Your task to perform on an android device: Open Youtube and go to "Your channel" Image 0: 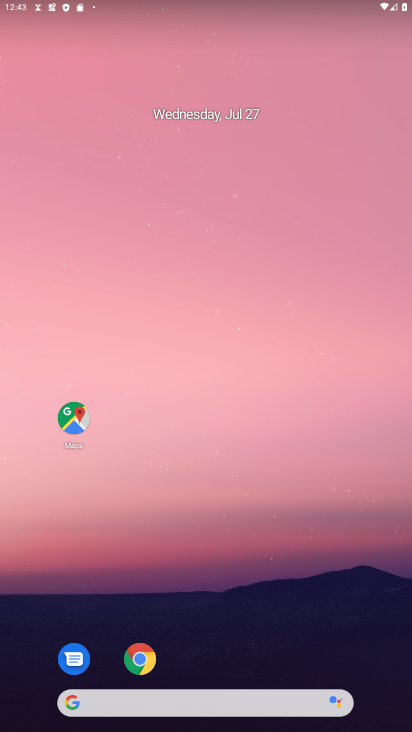
Step 0: drag from (211, 678) to (231, 66)
Your task to perform on an android device: Open Youtube and go to "Your channel" Image 1: 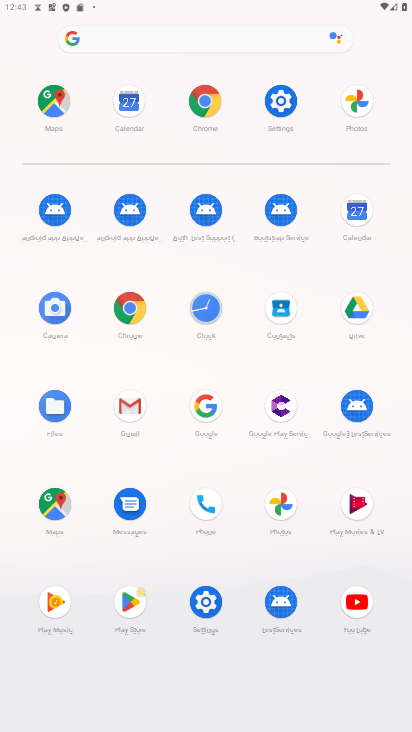
Step 1: click (356, 600)
Your task to perform on an android device: Open Youtube and go to "Your channel" Image 2: 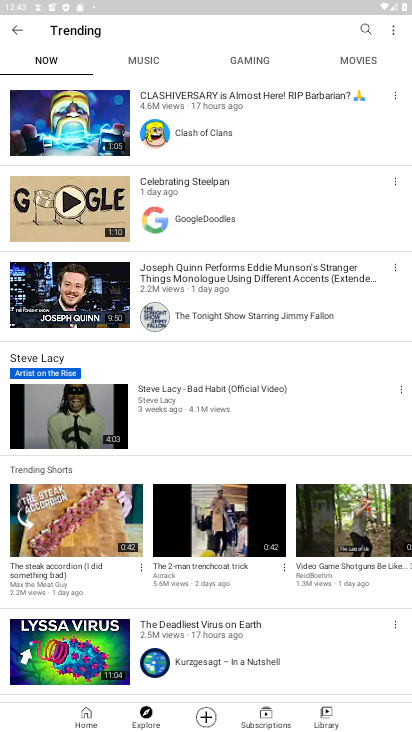
Step 2: click (11, 21)
Your task to perform on an android device: Open Youtube and go to "Your channel" Image 3: 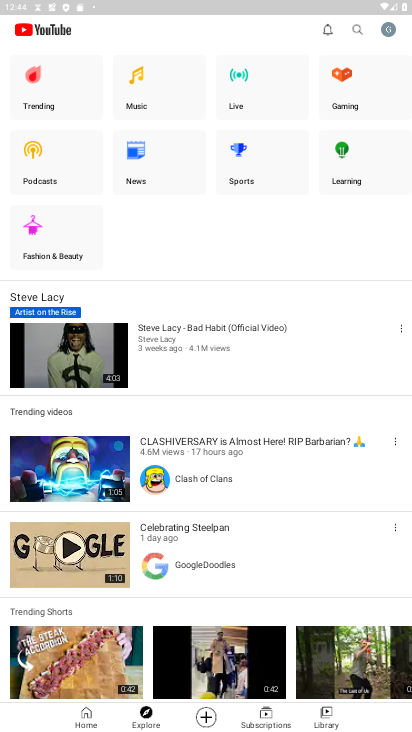
Step 3: click (385, 26)
Your task to perform on an android device: Open Youtube and go to "Your channel" Image 4: 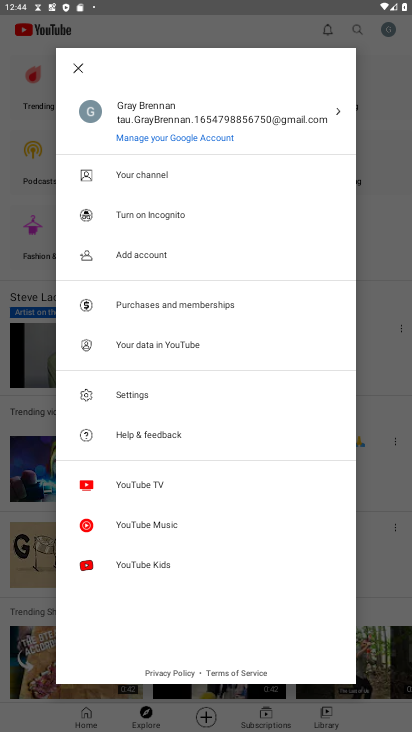
Step 4: click (135, 173)
Your task to perform on an android device: Open Youtube and go to "Your channel" Image 5: 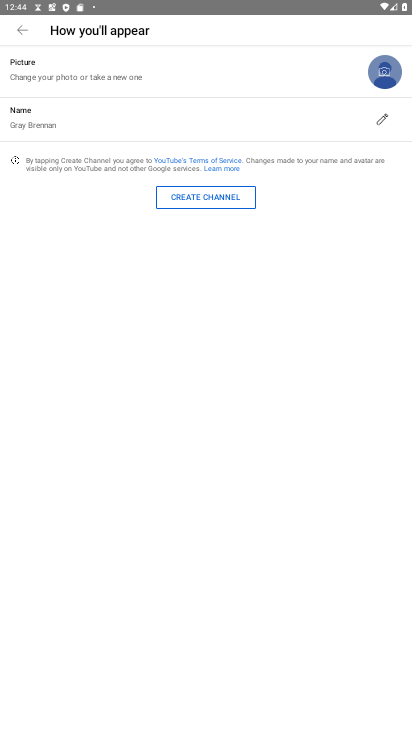
Step 5: click (20, 25)
Your task to perform on an android device: Open Youtube and go to "Your channel" Image 6: 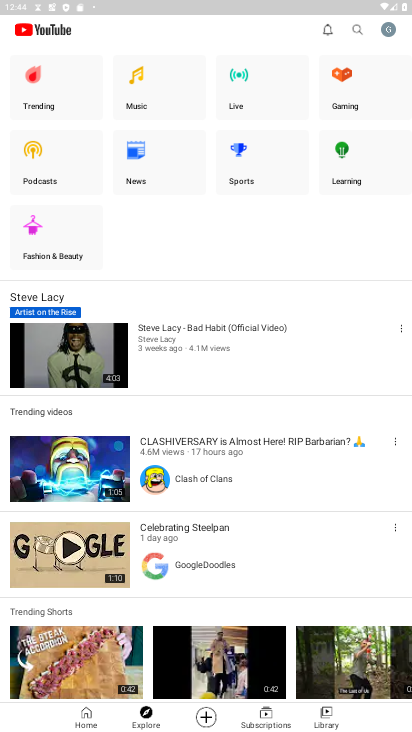
Step 6: click (385, 28)
Your task to perform on an android device: Open Youtube and go to "Your channel" Image 7: 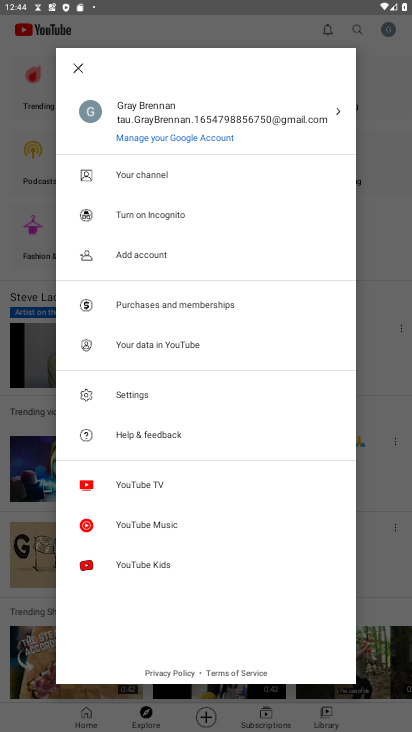
Step 7: click (161, 174)
Your task to perform on an android device: Open Youtube and go to "Your channel" Image 8: 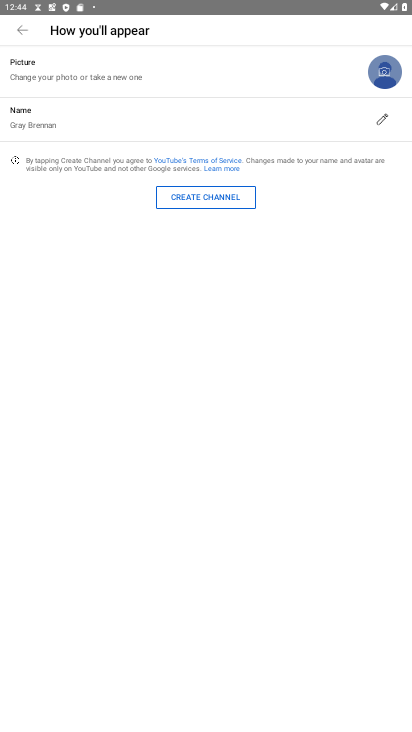
Step 8: task complete